Your task to perform on an android device: Install the Spotify app Image 0: 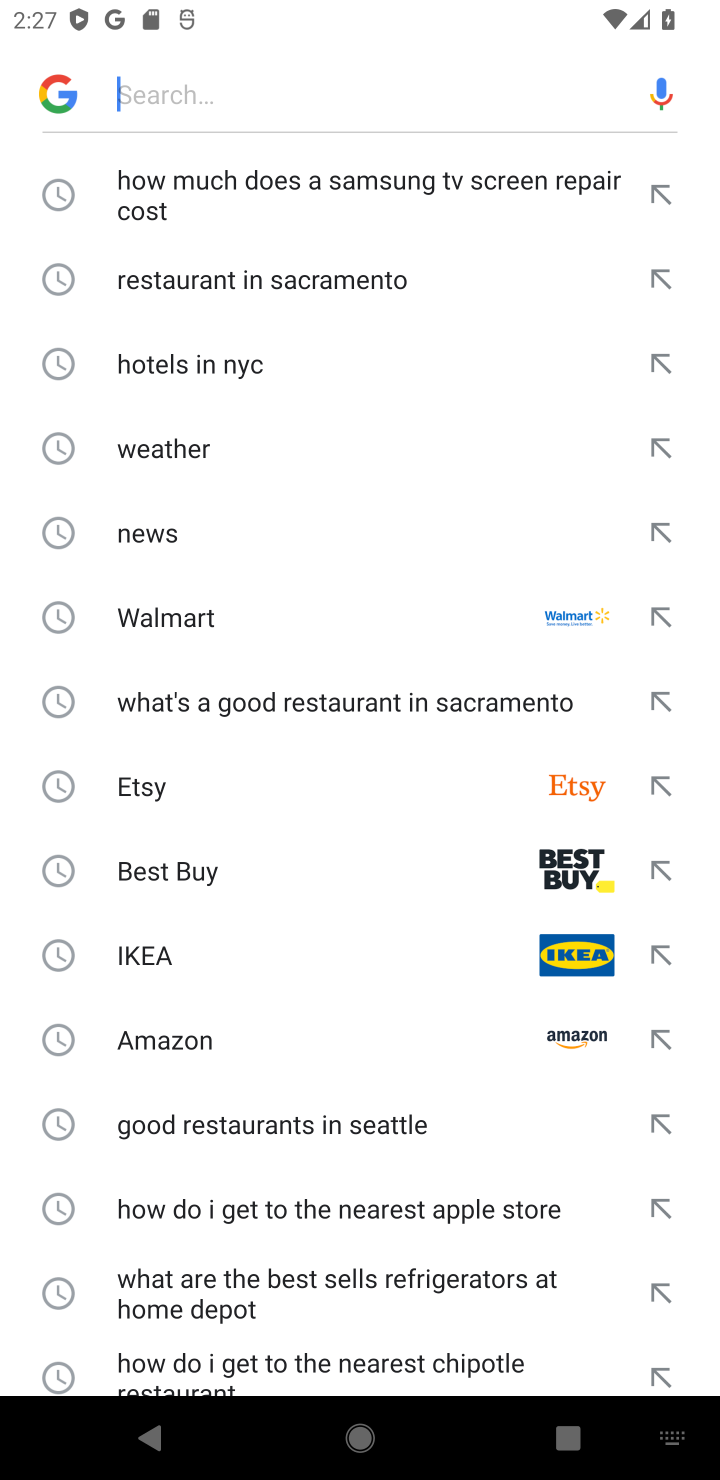
Step 0: press home button
Your task to perform on an android device: Install the Spotify app Image 1: 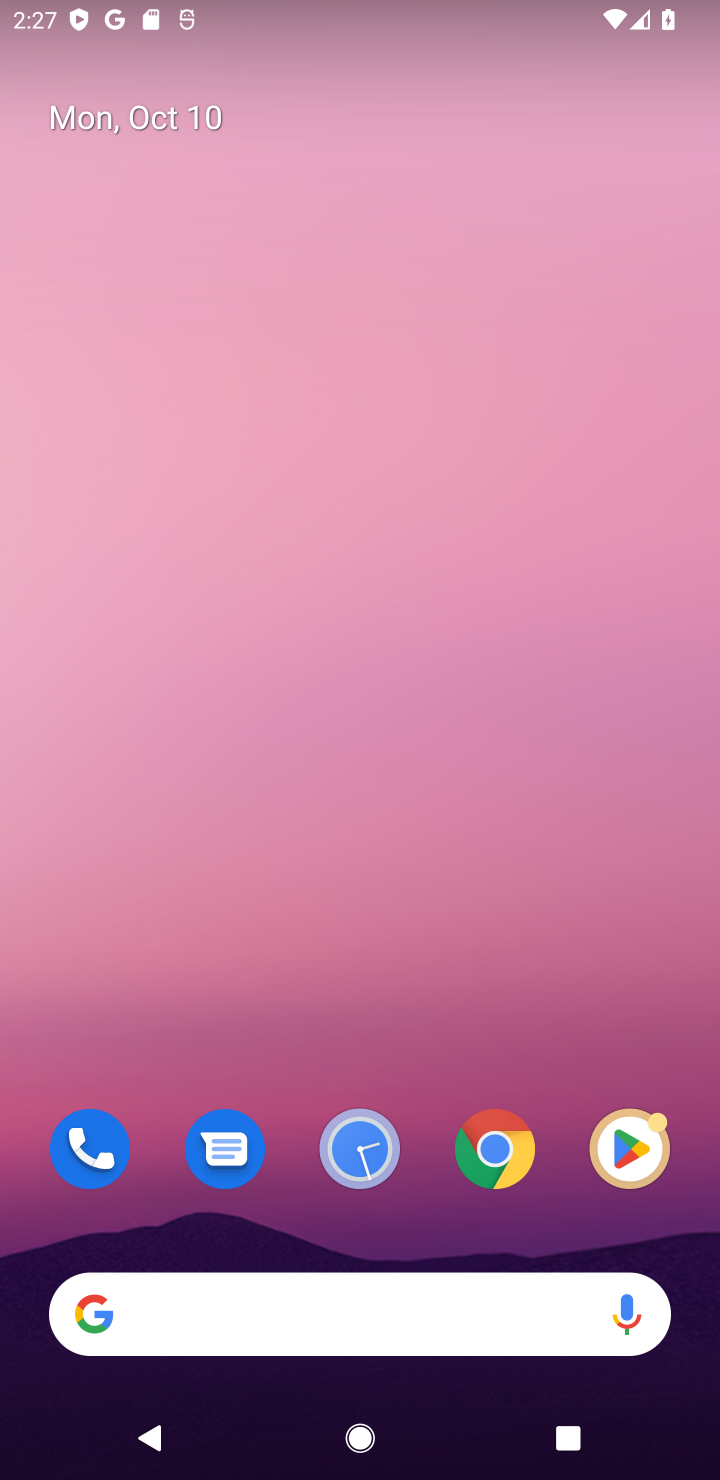
Step 1: click (631, 1171)
Your task to perform on an android device: Install the Spotify app Image 2: 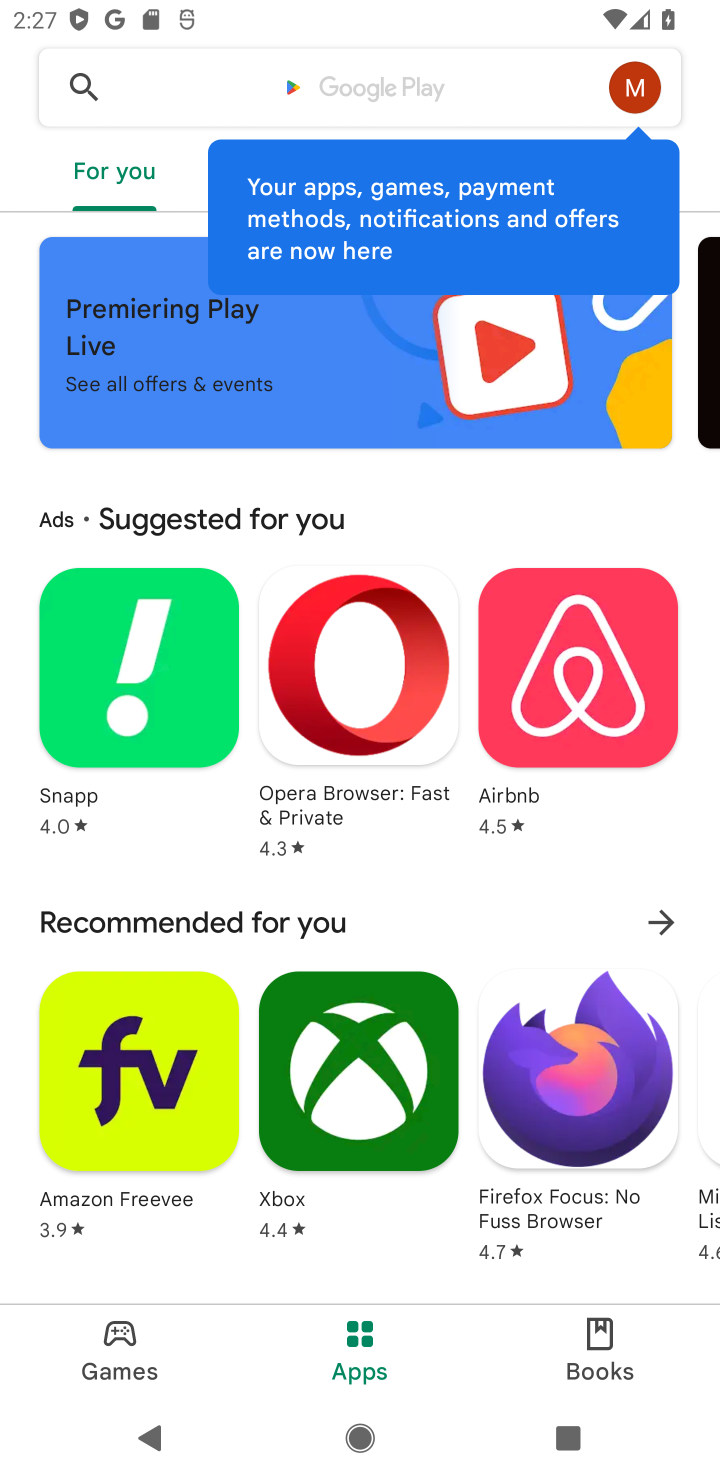
Step 2: click (333, 86)
Your task to perform on an android device: Install the Spotify app Image 3: 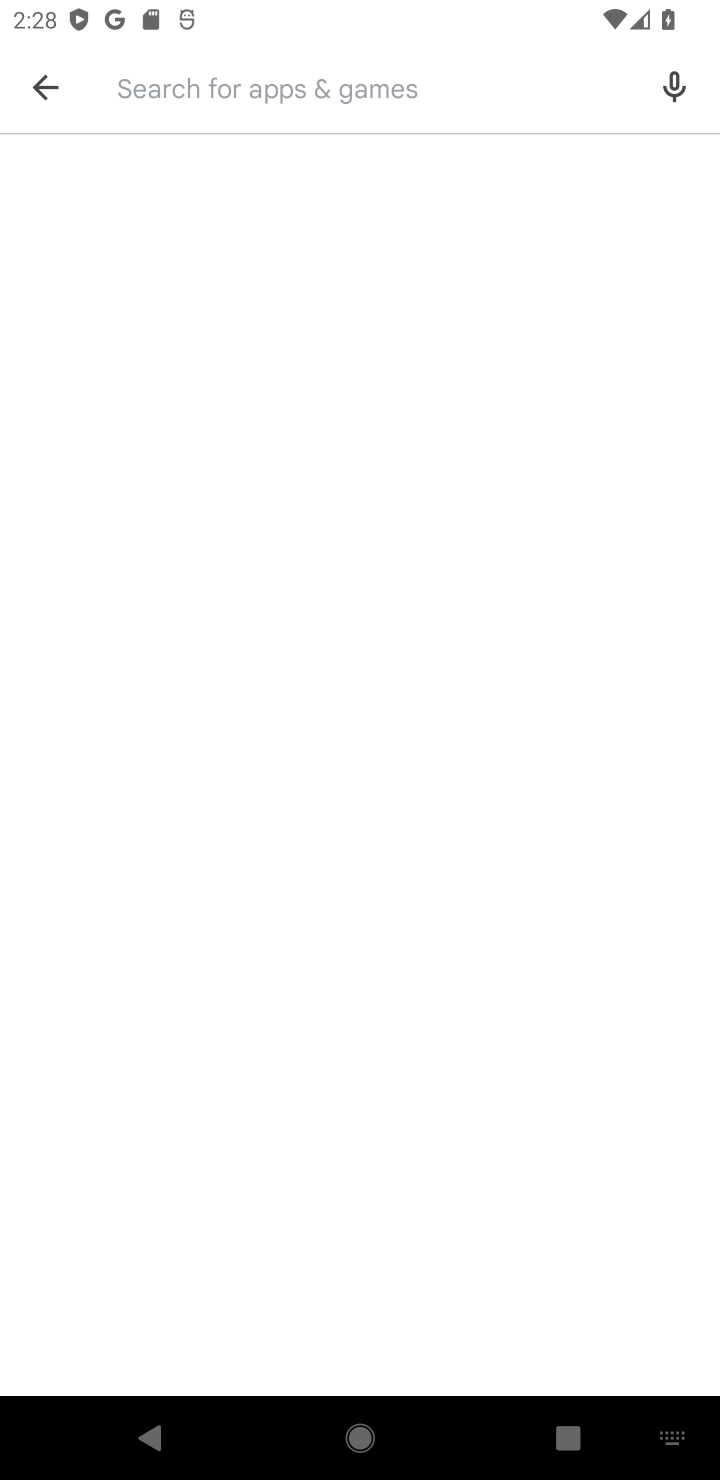
Step 3: type "spotify"
Your task to perform on an android device: Install the Spotify app Image 4: 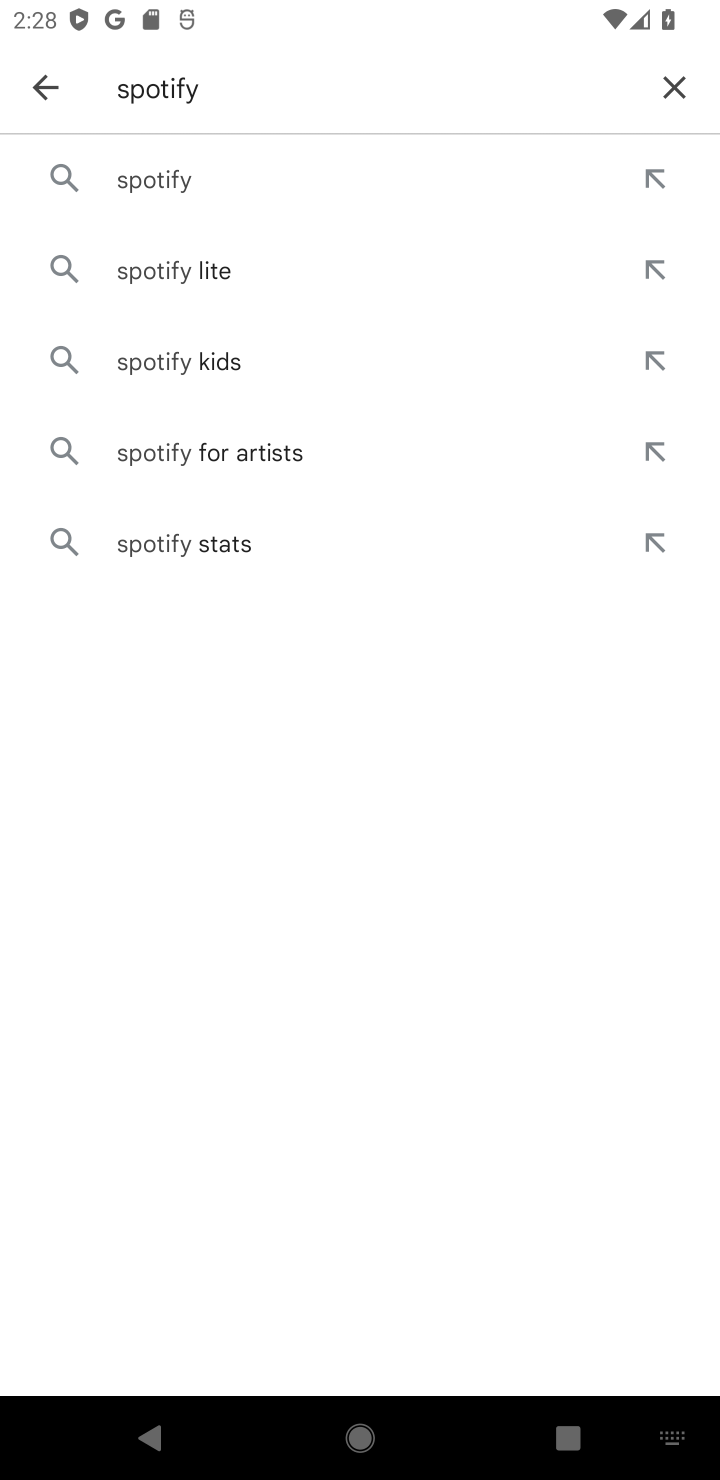
Step 4: click (255, 169)
Your task to perform on an android device: Install the Spotify app Image 5: 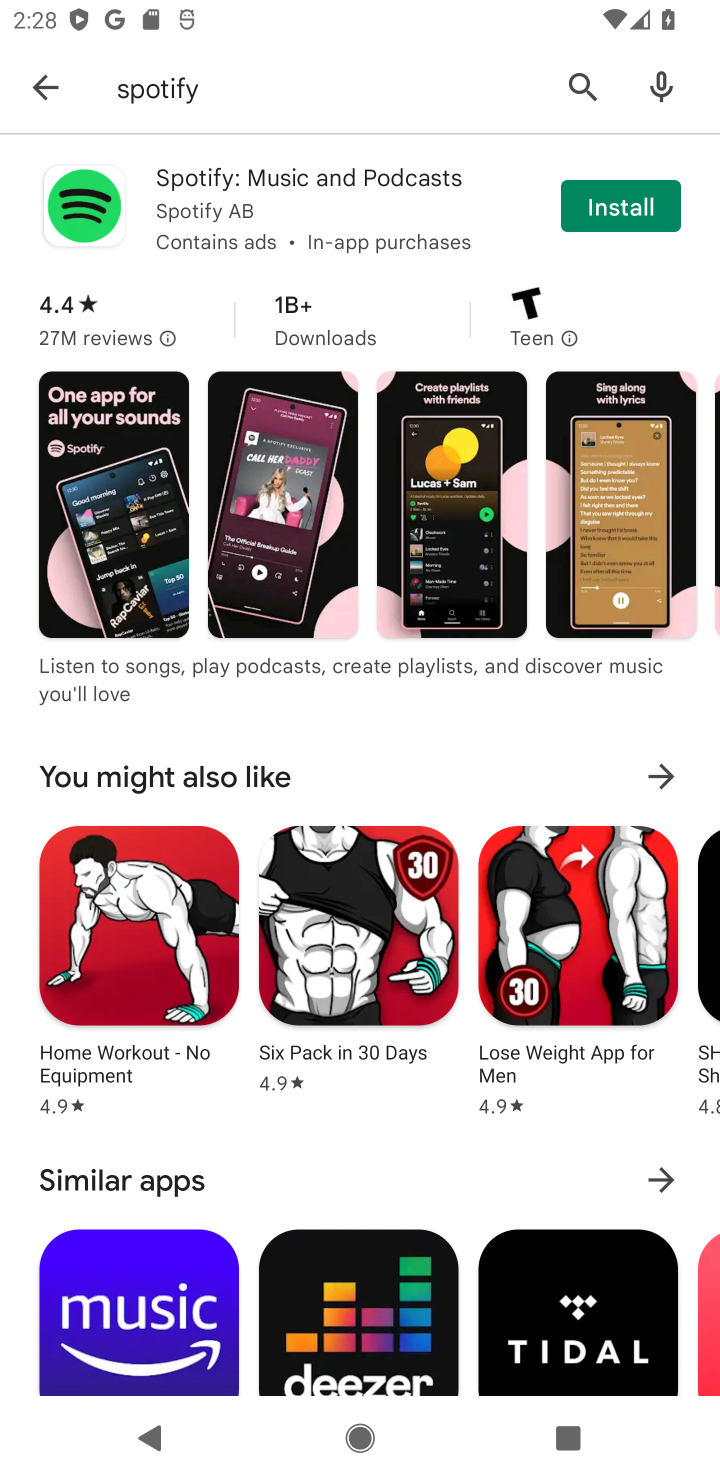
Step 5: click (590, 230)
Your task to perform on an android device: Install the Spotify app Image 6: 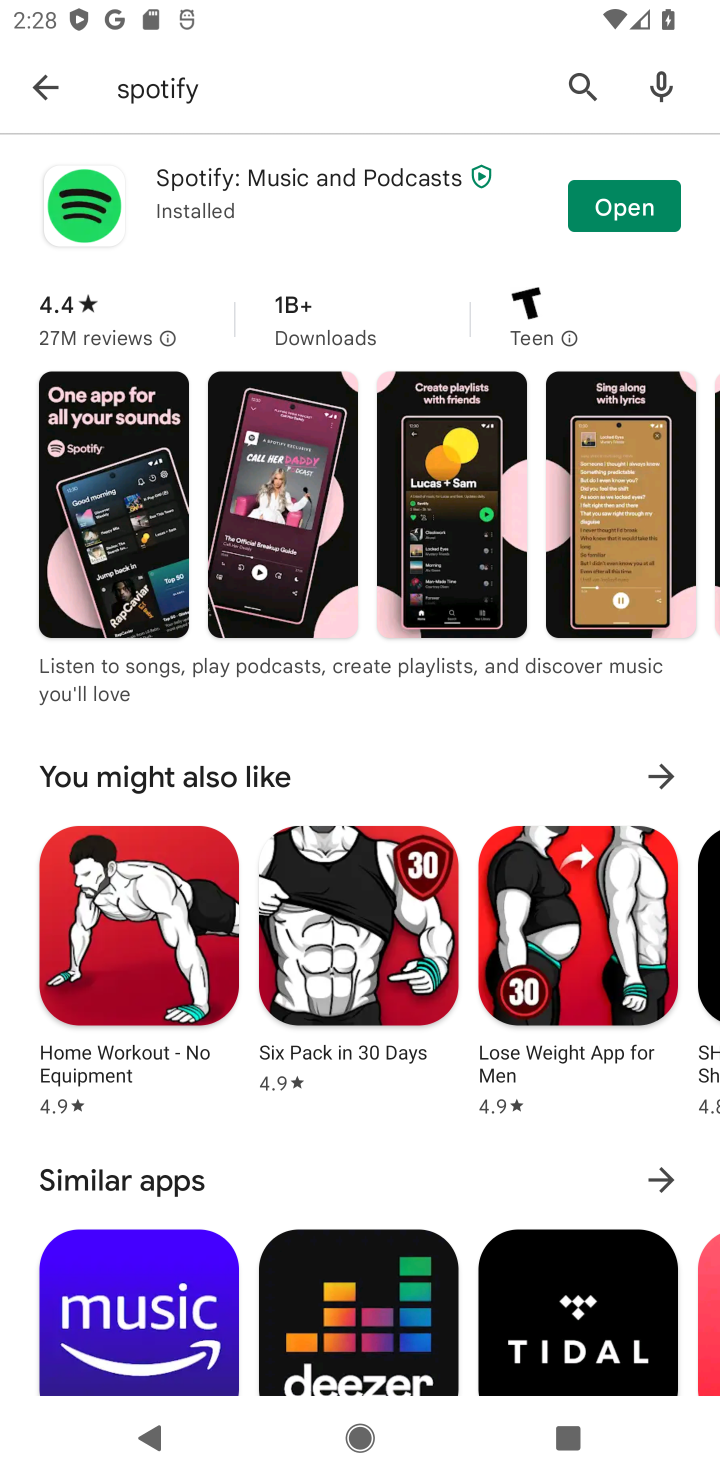
Step 6: task complete